Your task to perform on an android device: toggle notification dots Image 0: 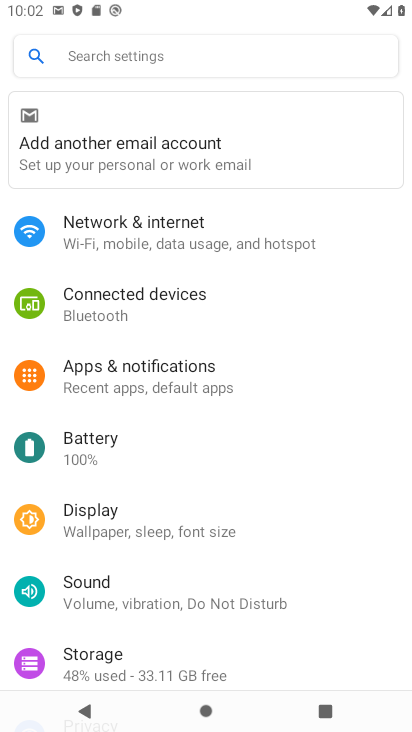
Step 0: click (165, 370)
Your task to perform on an android device: toggle notification dots Image 1: 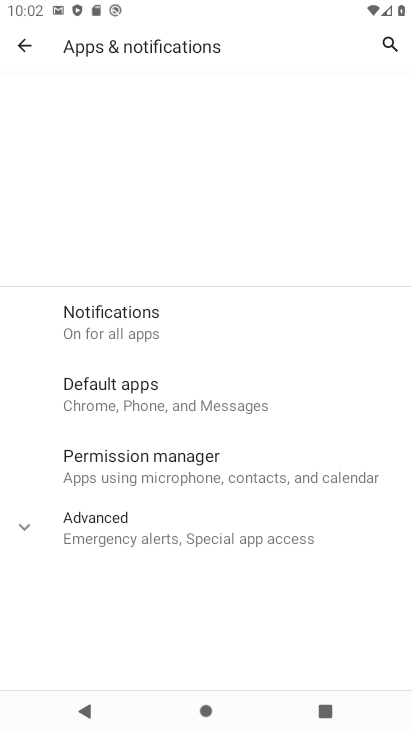
Step 1: click (127, 317)
Your task to perform on an android device: toggle notification dots Image 2: 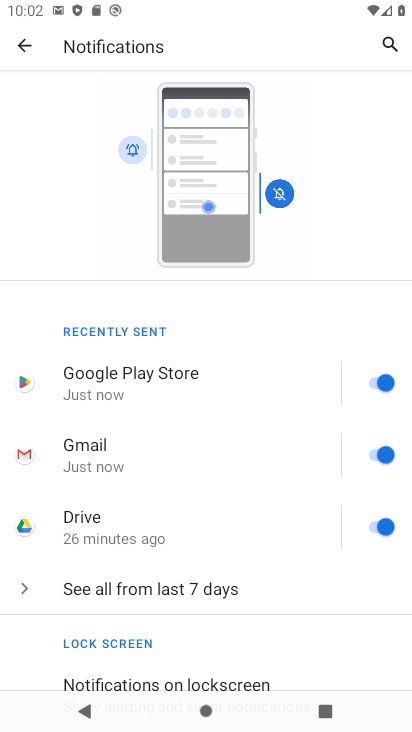
Step 2: drag from (236, 659) to (250, 132)
Your task to perform on an android device: toggle notification dots Image 3: 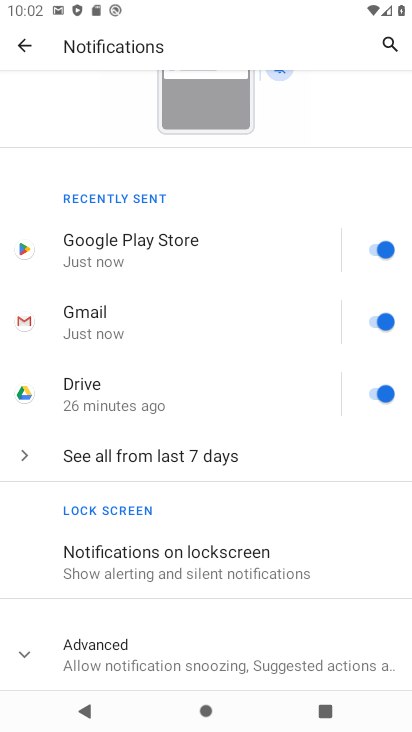
Step 3: click (126, 646)
Your task to perform on an android device: toggle notification dots Image 4: 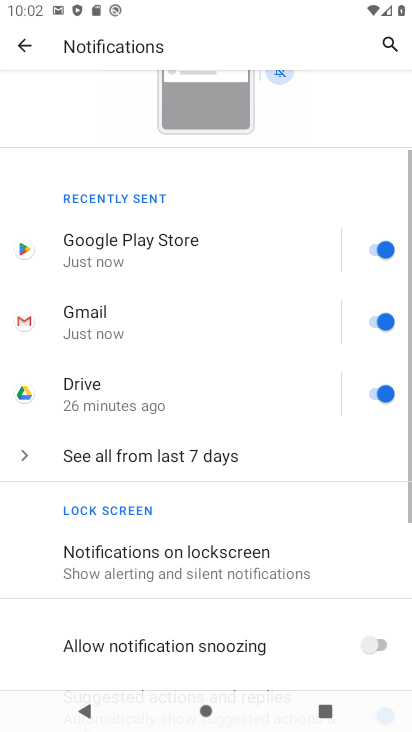
Step 4: drag from (202, 518) to (366, 90)
Your task to perform on an android device: toggle notification dots Image 5: 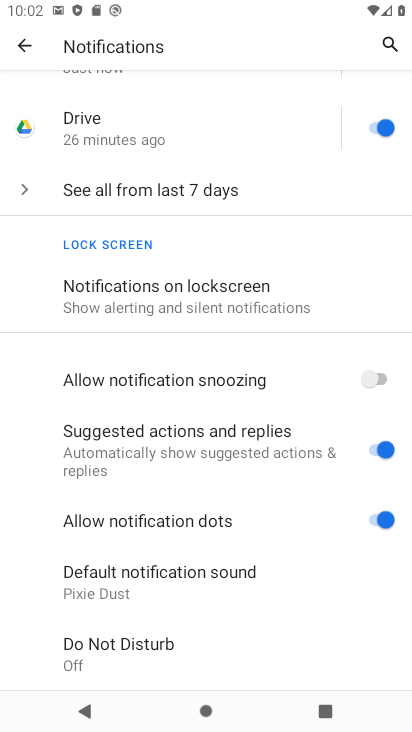
Step 5: click (378, 511)
Your task to perform on an android device: toggle notification dots Image 6: 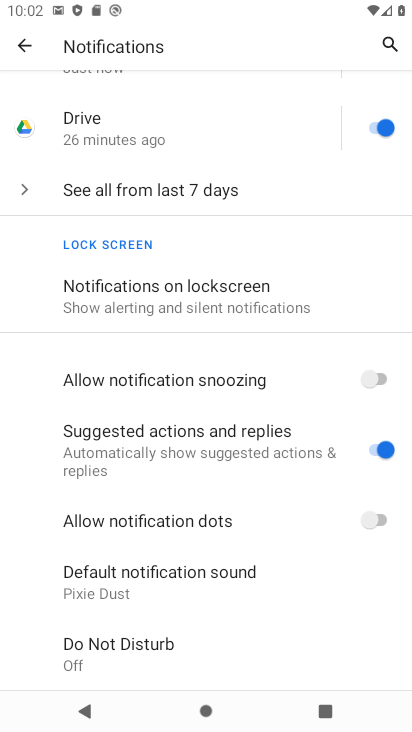
Step 6: task complete